Your task to perform on an android device: open a bookmark in the chrome app Image 0: 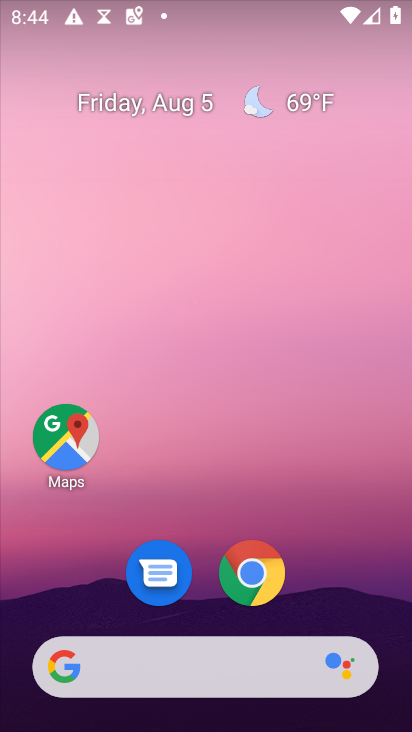
Step 0: click (256, 571)
Your task to perform on an android device: open a bookmark in the chrome app Image 1: 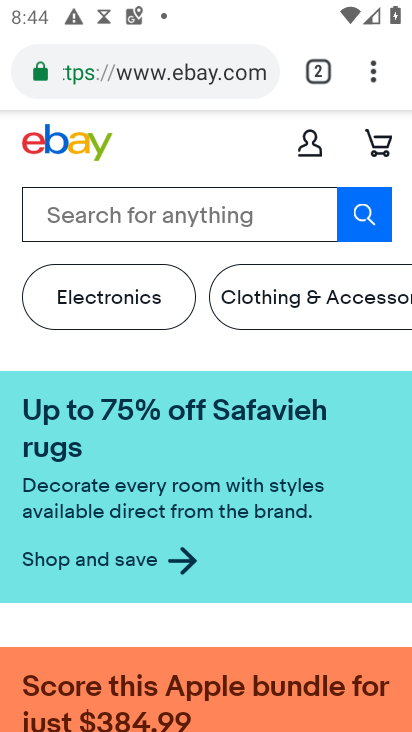
Step 1: click (375, 76)
Your task to perform on an android device: open a bookmark in the chrome app Image 2: 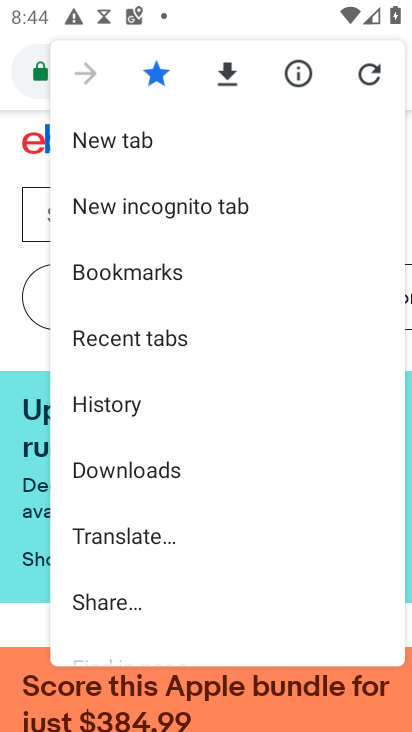
Step 2: click (156, 270)
Your task to perform on an android device: open a bookmark in the chrome app Image 3: 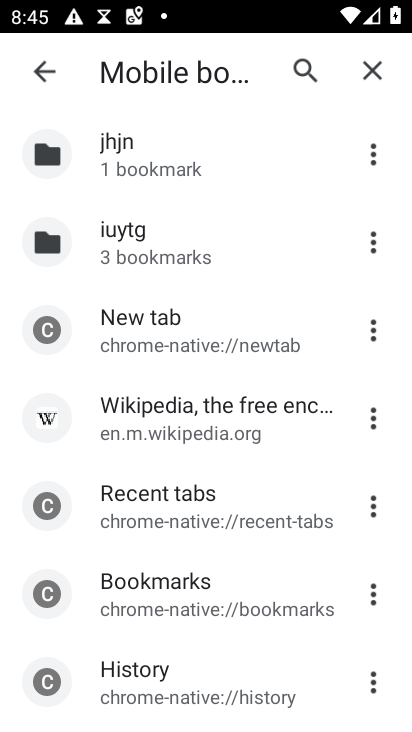
Step 3: task complete